Your task to perform on an android device: Open Google Chrome Image 0: 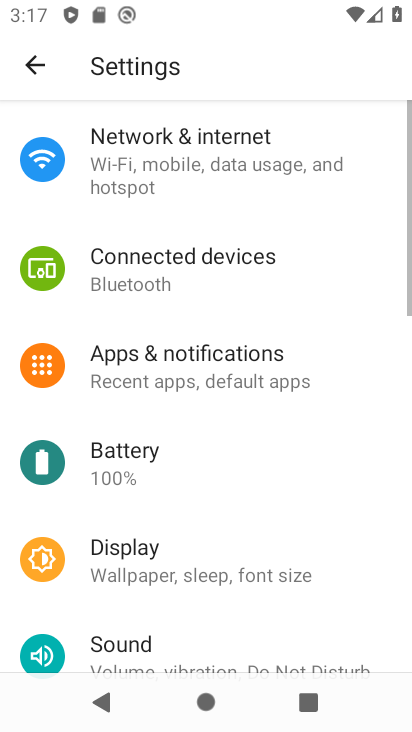
Step 0: press home button
Your task to perform on an android device: Open Google Chrome Image 1: 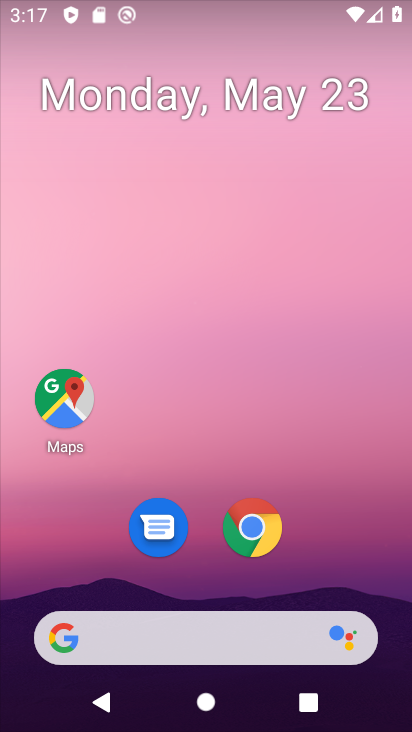
Step 1: click (241, 539)
Your task to perform on an android device: Open Google Chrome Image 2: 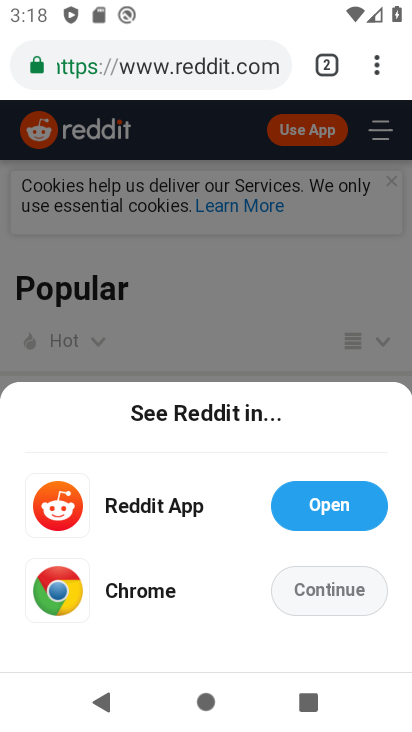
Step 2: task complete